Your task to perform on an android device: open chrome privacy settings Image 0: 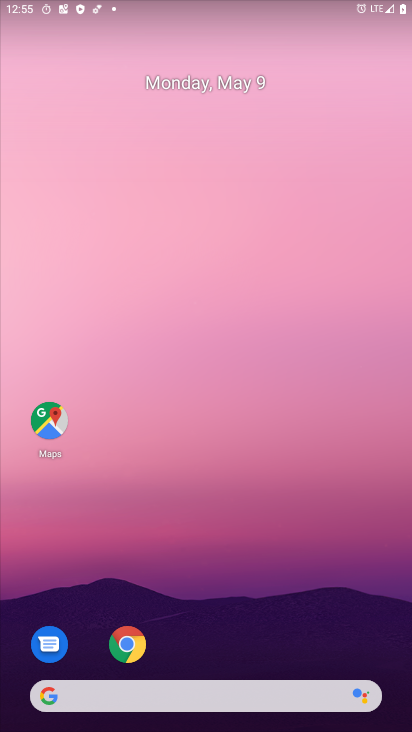
Step 0: click (130, 3)
Your task to perform on an android device: open chrome privacy settings Image 1: 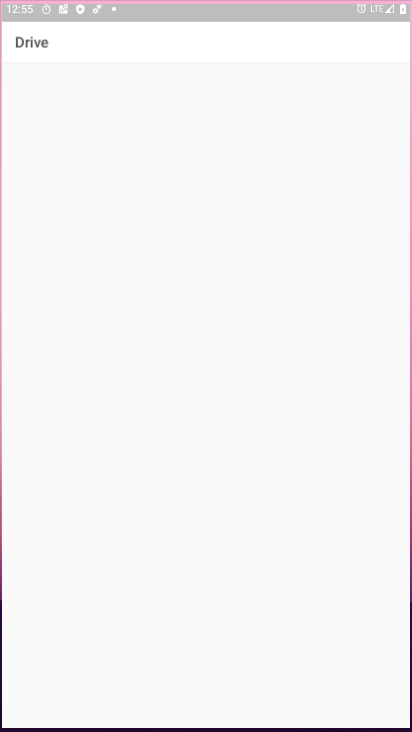
Step 1: press home button
Your task to perform on an android device: open chrome privacy settings Image 2: 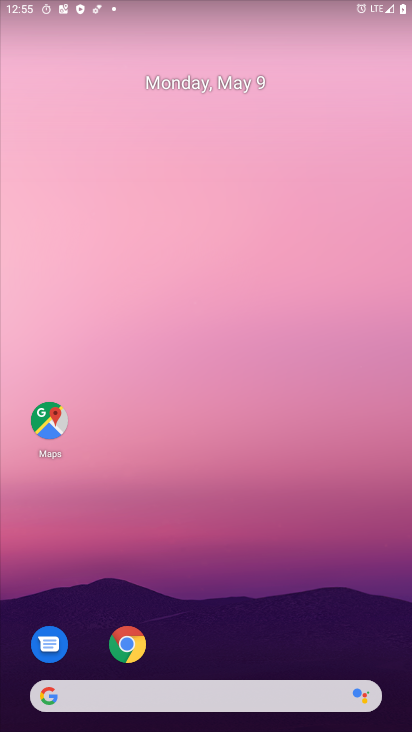
Step 2: drag from (244, 606) to (159, 206)
Your task to perform on an android device: open chrome privacy settings Image 3: 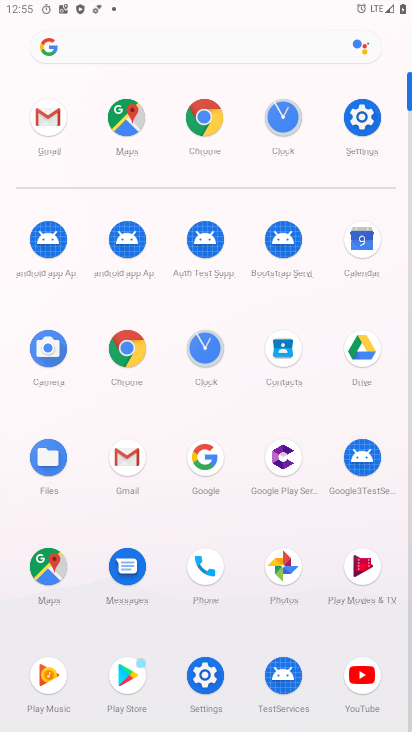
Step 3: click (362, 135)
Your task to perform on an android device: open chrome privacy settings Image 4: 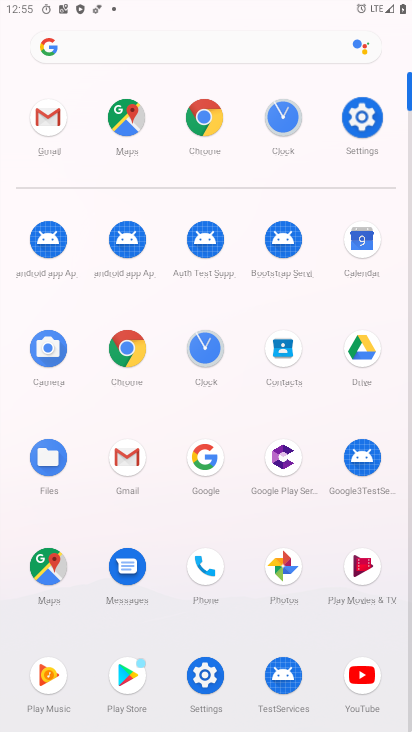
Step 4: click (362, 134)
Your task to perform on an android device: open chrome privacy settings Image 5: 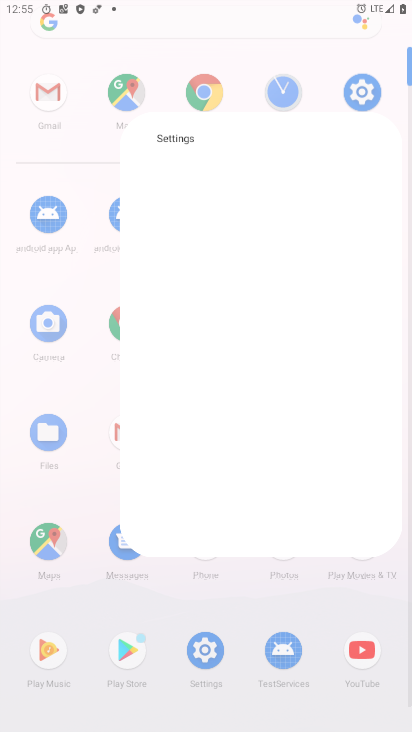
Step 5: click (362, 134)
Your task to perform on an android device: open chrome privacy settings Image 6: 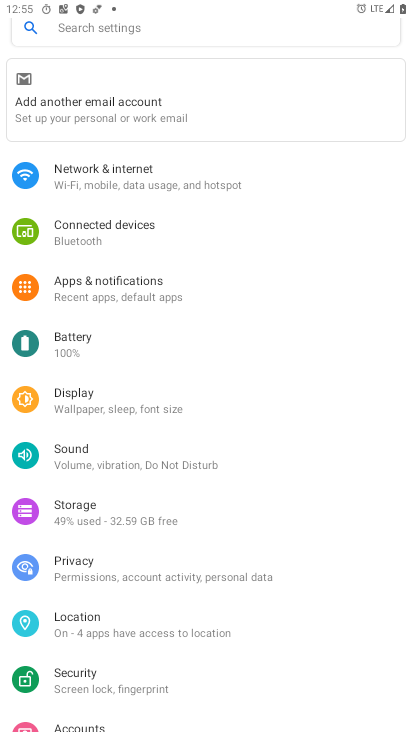
Step 6: click (79, 542)
Your task to perform on an android device: open chrome privacy settings Image 7: 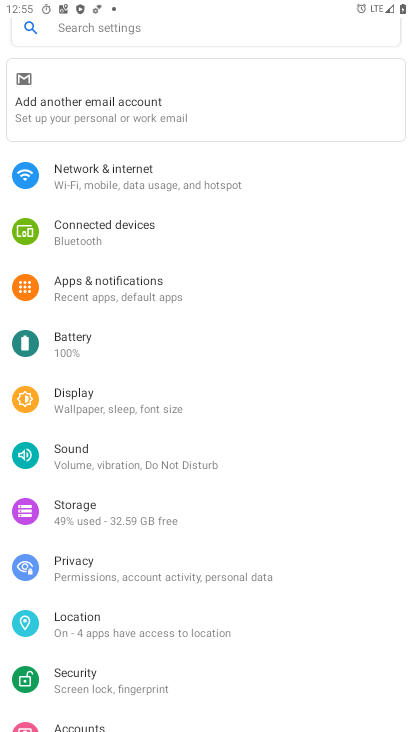
Step 7: click (79, 542)
Your task to perform on an android device: open chrome privacy settings Image 8: 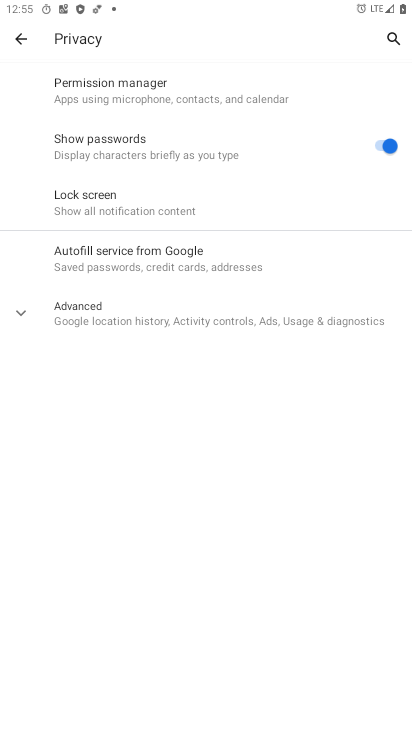
Step 8: task complete